Your task to perform on an android device: change notification settings in the gmail app Image 0: 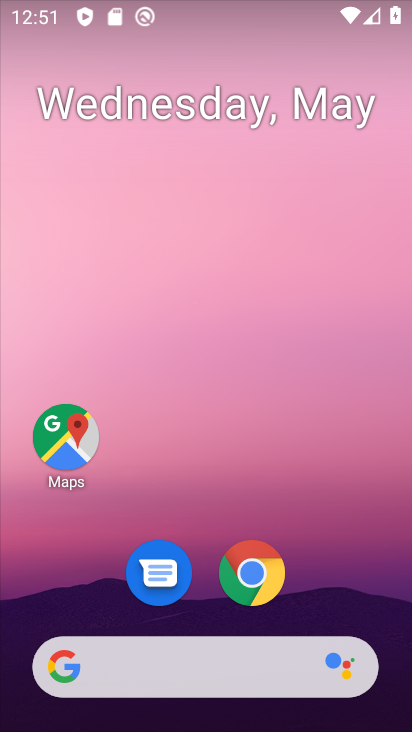
Step 0: drag from (372, 618) to (370, 181)
Your task to perform on an android device: change notification settings in the gmail app Image 1: 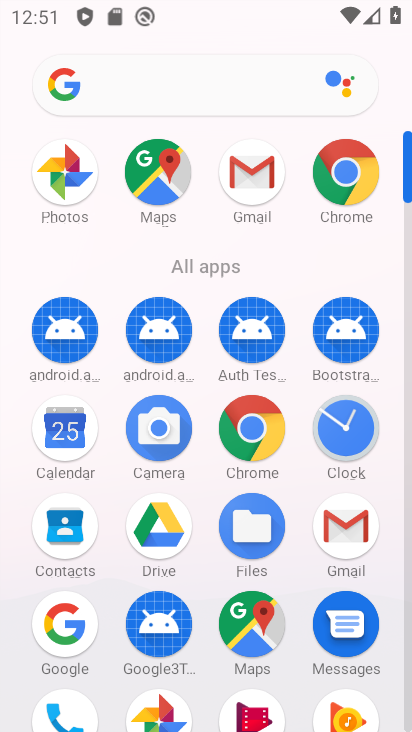
Step 1: click (348, 529)
Your task to perform on an android device: change notification settings in the gmail app Image 2: 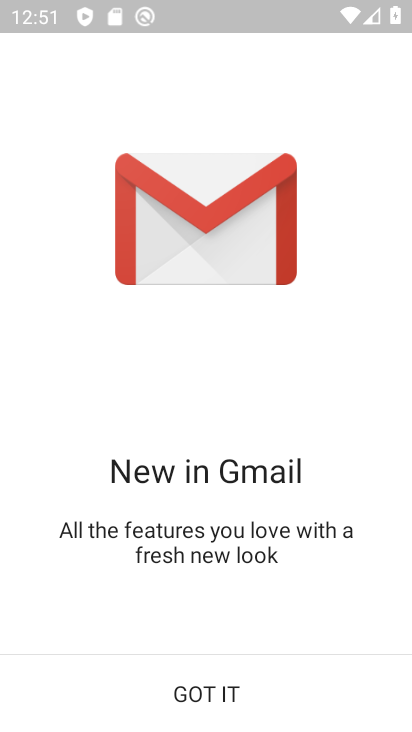
Step 2: click (217, 681)
Your task to perform on an android device: change notification settings in the gmail app Image 3: 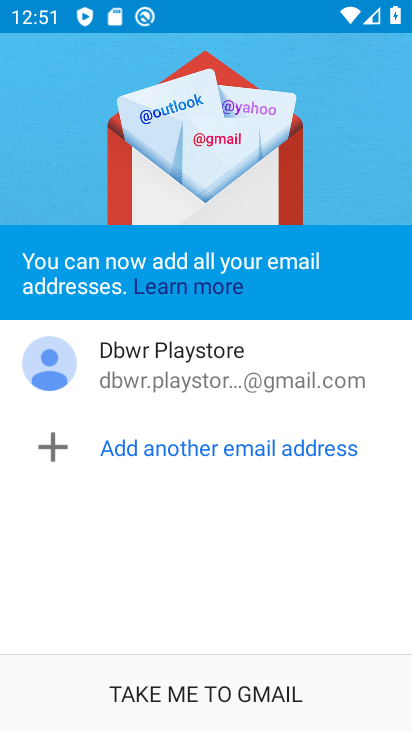
Step 3: click (206, 691)
Your task to perform on an android device: change notification settings in the gmail app Image 4: 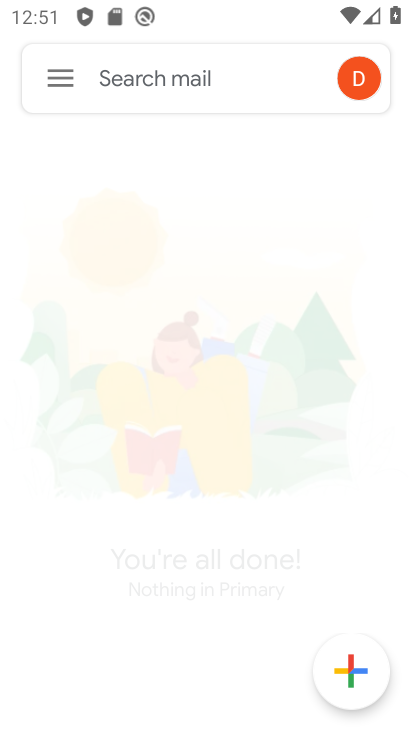
Step 4: click (59, 78)
Your task to perform on an android device: change notification settings in the gmail app Image 5: 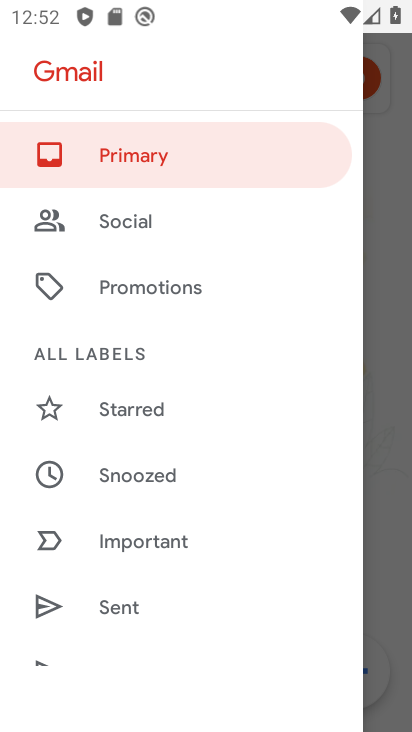
Step 5: drag from (235, 658) to (308, 214)
Your task to perform on an android device: change notification settings in the gmail app Image 6: 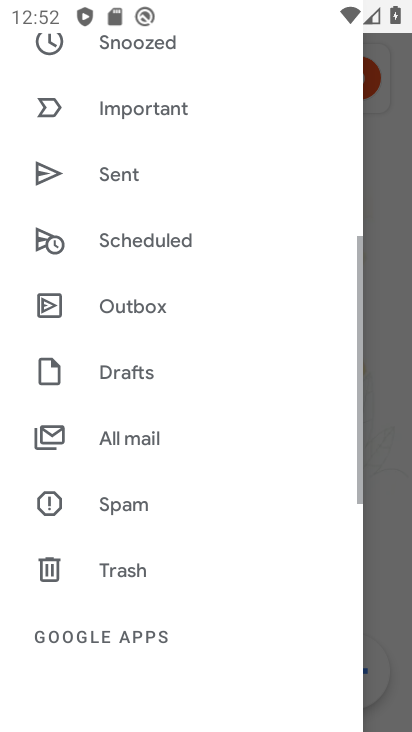
Step 6: drag from (202, 623) to (275, 188)
Your task to perform on an android device: change notification settings in the gmail app Image 7: 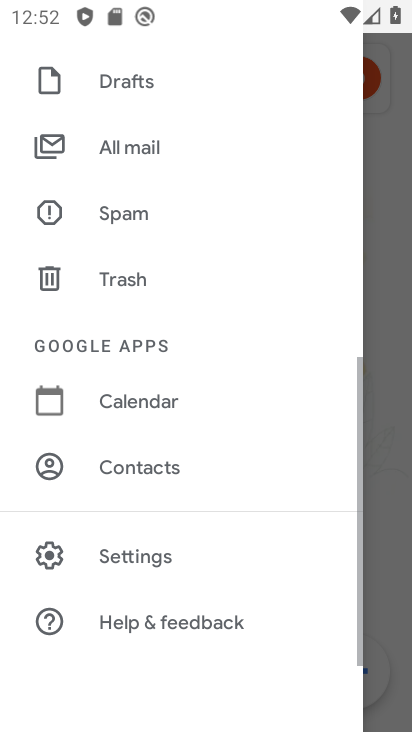
Step 7: click (117, 546)
Your task to perform on an android device: change notification settings in the gmail app Image 8: 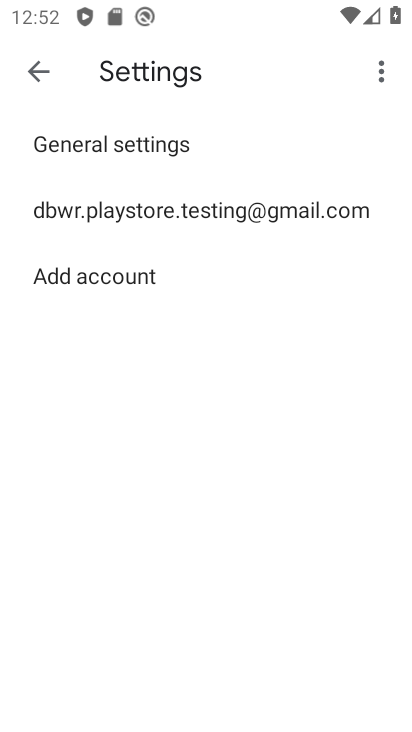
Step 8: click (187, 212)
Your task to perform on an android device: change notification settings in the gmail app Image 9: 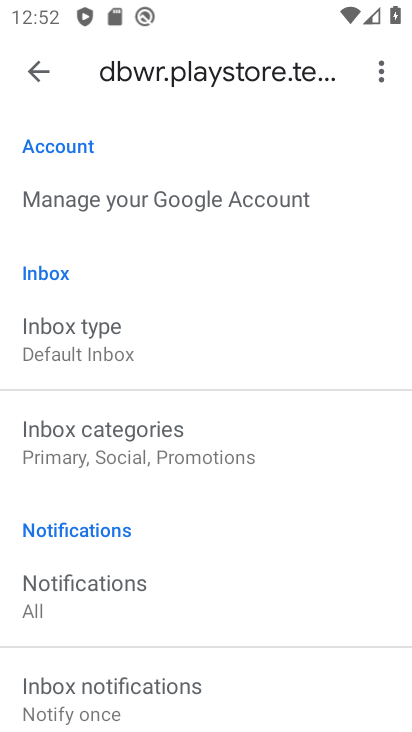
Step 9: drag from (162, 565) to (270, 122)
Your task to perform on an android device: change notification settings in the gmail app Image 10: 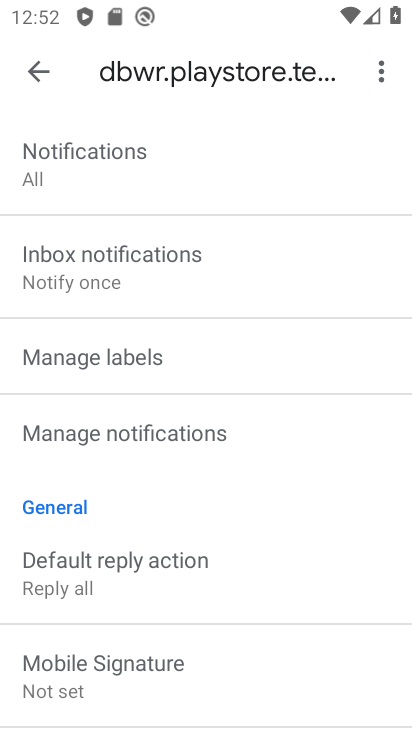
Step 10: click (95, 438)
Your task to perform on an android device: change notification settings in the gmail app Image 11: 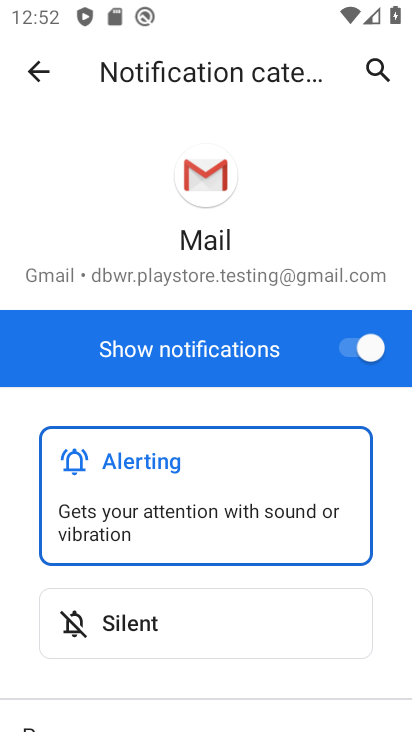
Step 11: drag from (280, 643) to (318, 181)
Your task to perform on an android device: change notification settings in the gmail app Image 12: 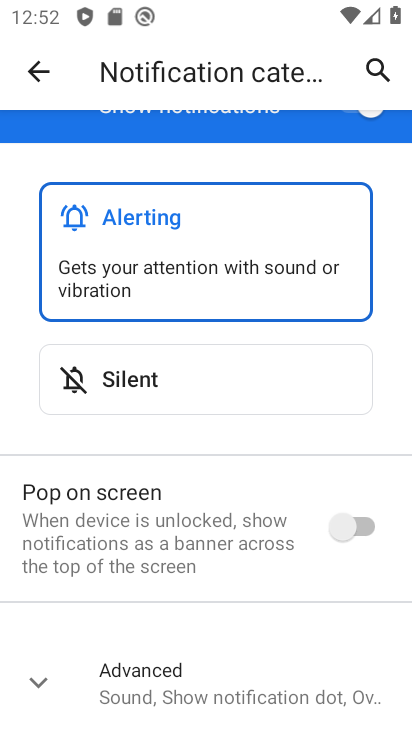
Step 12: drag from (316, 272) to (302, 344)
Your task to perform on an android device: change notification settings in the gmail app Image 13: 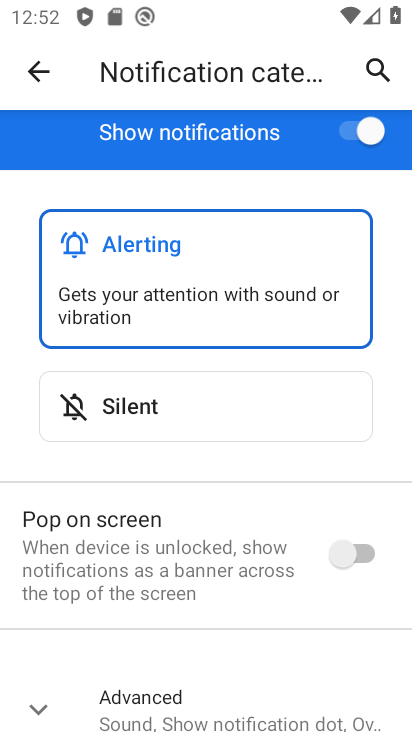
Step 13: click (345, 136)
Your task to perform on an android device: change notification settings in the gmail app Image 14: 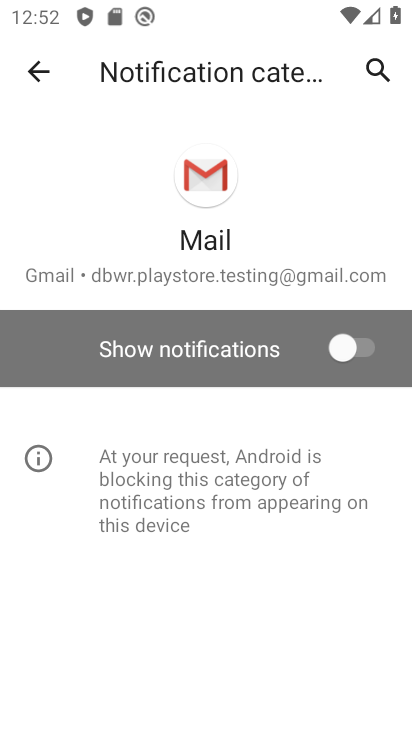
Step 14: task complete